Your task to perform on an android device: turn vacation reply on in the gmail app Image 0: 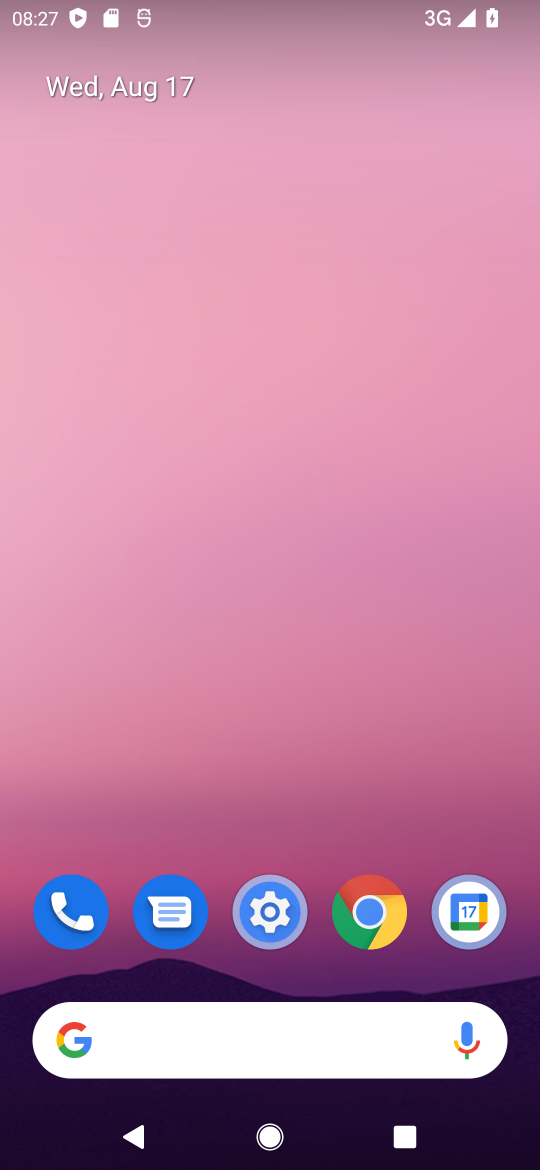
Step 0: drag from (245, 942) to (146, 275)
Your task to perform on an android device: turn vacation reply on in the gmail app Image 1: 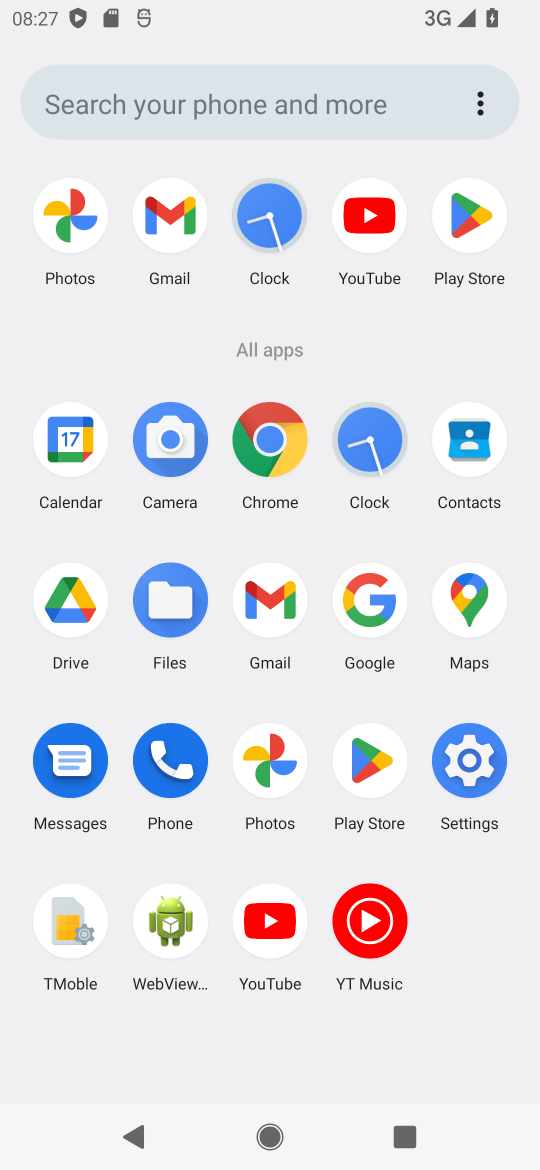
Step 1: click (269, 621)
Your task to perform on an android device: turn vacation reply on in the gmail app Image 2: 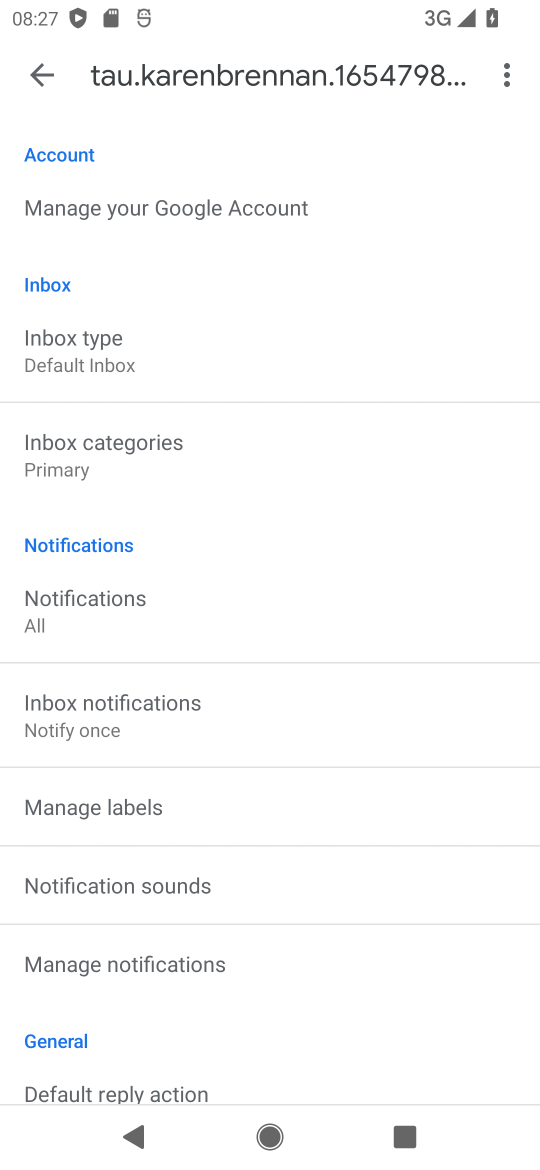
Step 2: drag from (87, 948) to (87, 340)
Your task to perform on an android device: turn vacation reply on in the gmail app Image 3: 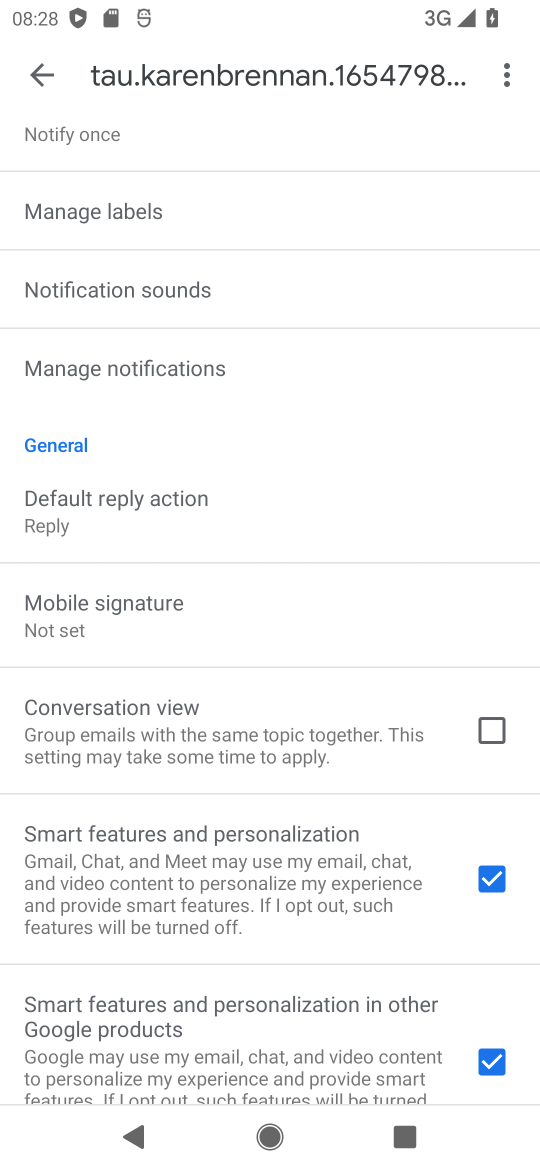
Step 3: drag from (88, 995) to (83, 268)
Your task to perform on an android device: turn vacation reply on in the gmail app Image 4: 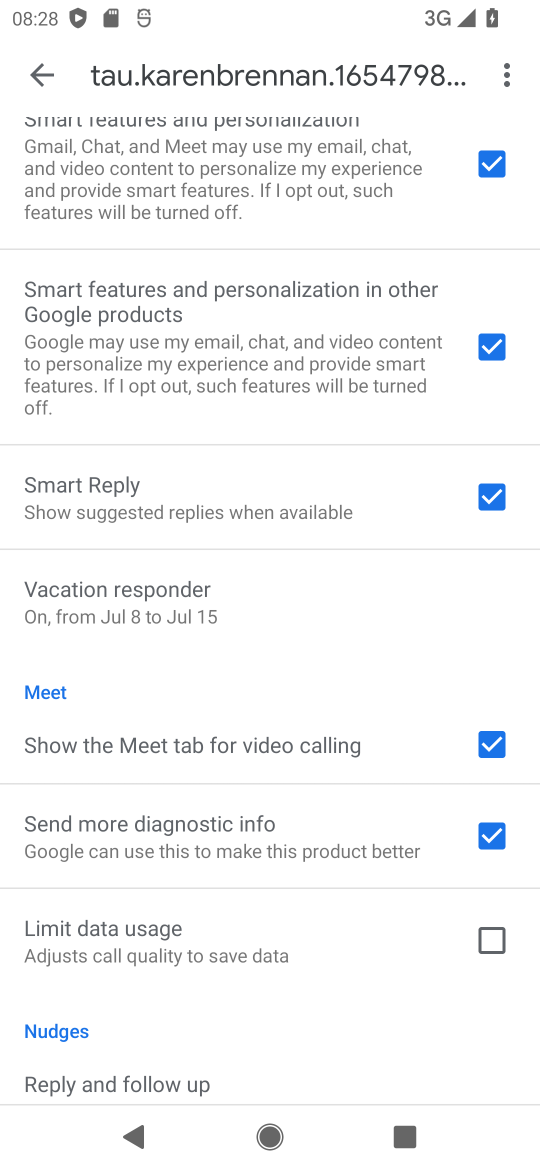
Step 4: drag from (116, 997) to (162, 408)
Your task to perform on an android device: turn vacation reply on in the gmail app Image 5: 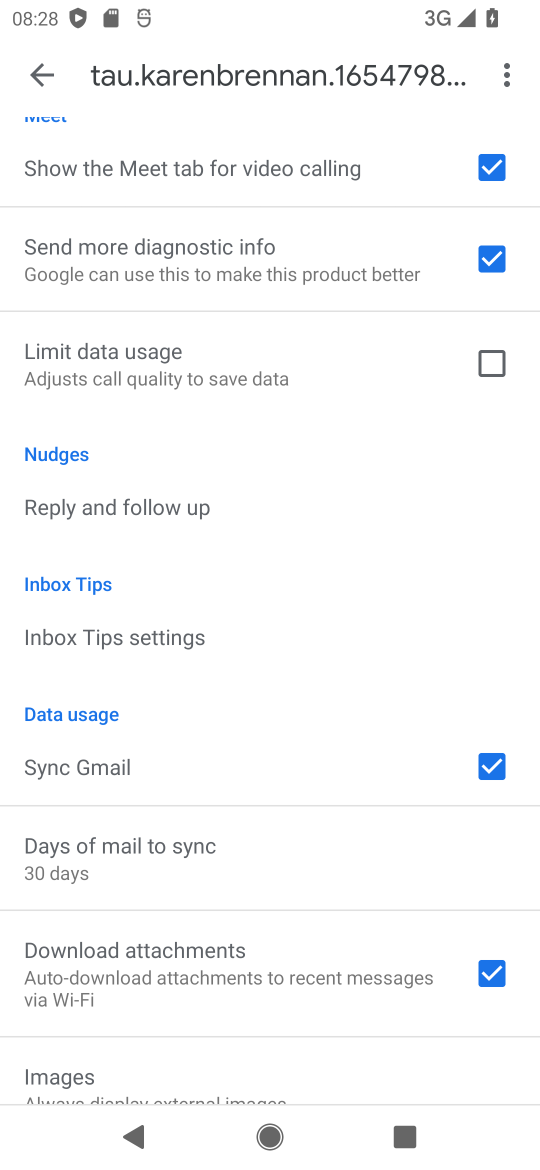
Step 5: drag from (136, 148) to (141, 690)
Your task to perform on an android device: turn vacation reply on in the gmail app Image 6: 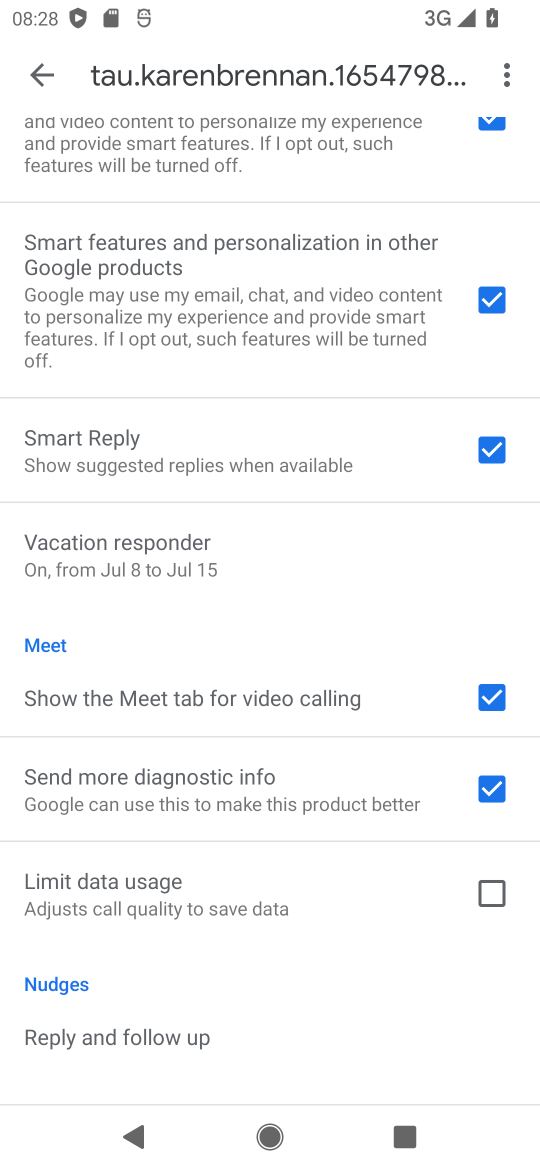
Step 6: click (80, 576)
Your task to perform on an android device: turn vacation reply on in the gmail app Image 7: 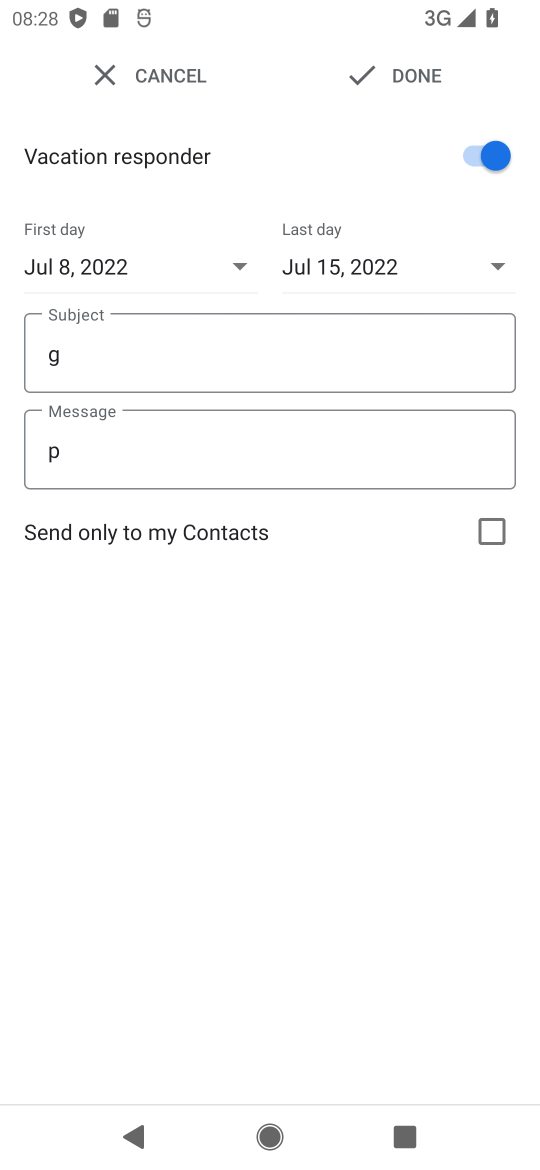
Step 7: click (424, 67)
Your task to perform on an android device: turn vacation reply on in the gmail app Image 8: 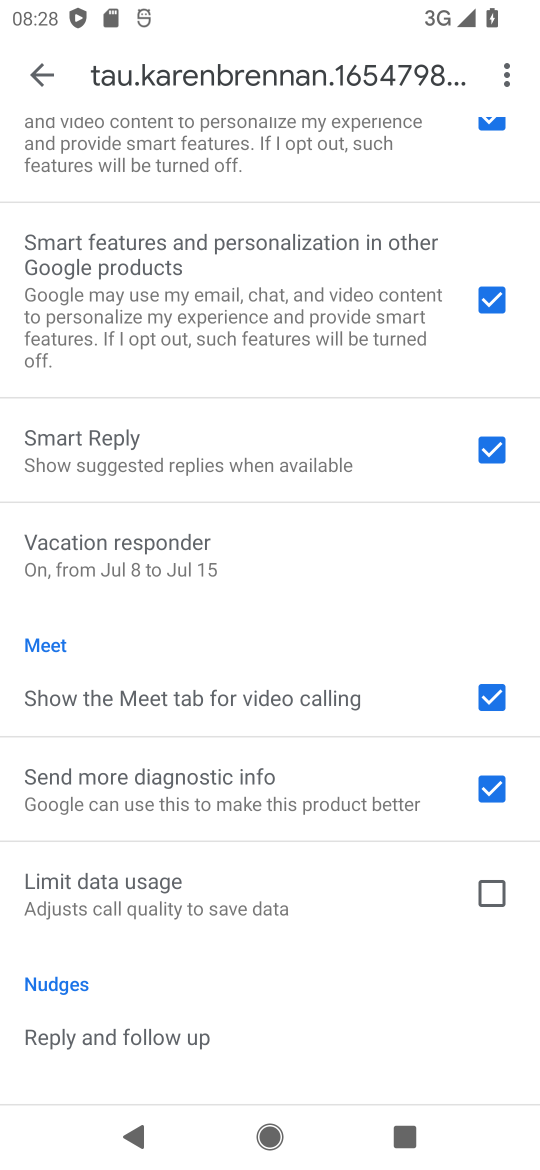
Step 8: task complete